Your task to perform on an android device: see sites visited before in the chrome app Image 0: 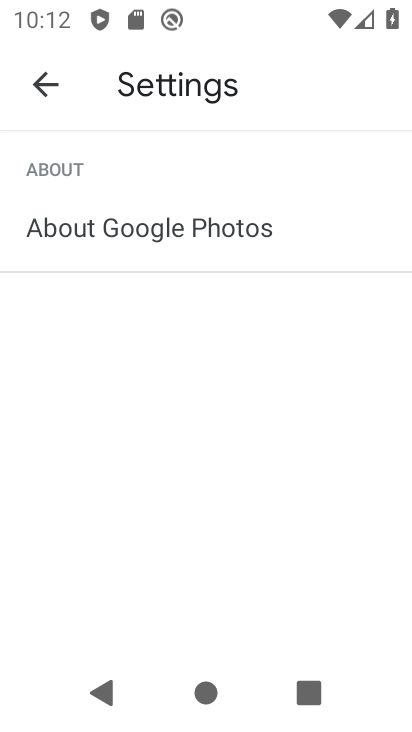
Step 0: click (254, 497)
Your task to perform on an android device: see sites visited before in the chrome app Image 1: 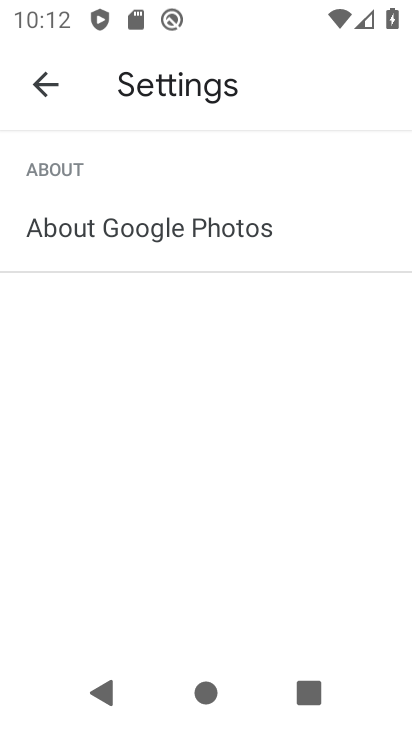
Step 1: press home button
Your task to perform on an android device: see sites visited before in the chrome app Image 2: 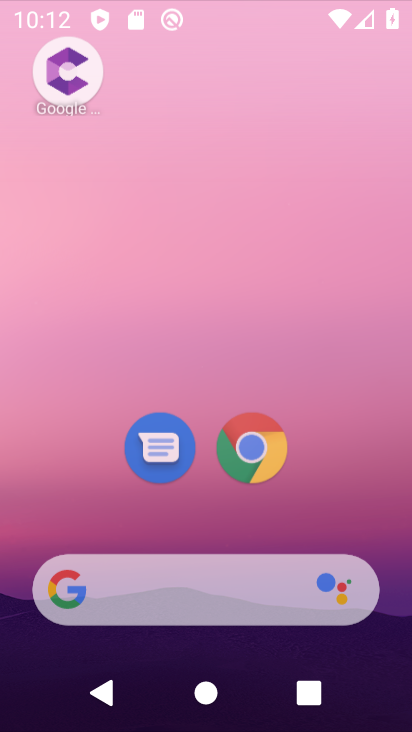
Step 2: click (193, 128)
Your task to perform on an android device: see sites visited before in the chrome app Image 3: 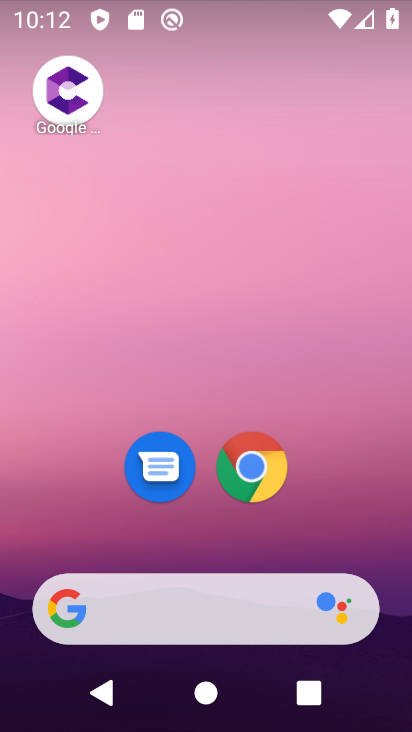
Step 3: drag from (208, 521) to (241, 95)
Your task to perform on an android device: see sites visited before in the chrome app Image 4: 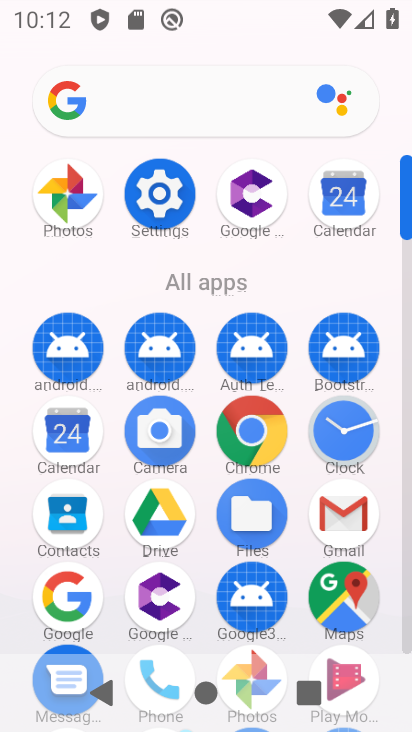
Step 4: click (250, 438)
Your task to perform on an android device: see sites visited before in the chrome app Image 5: 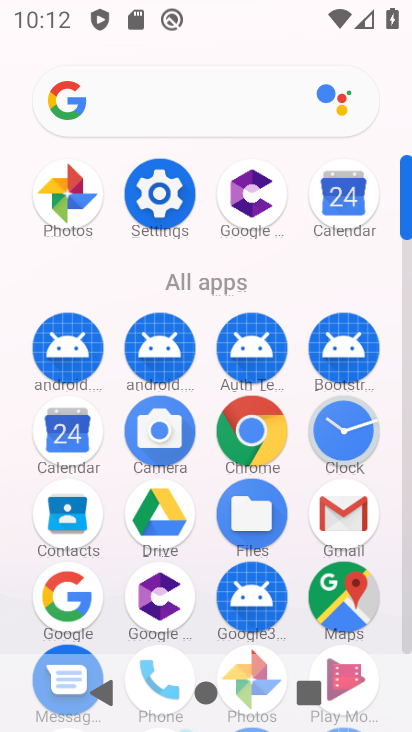
Step 5: click (250, 438)
Your task to perform on an android device: see sites visited before in the chrome app Image 6: 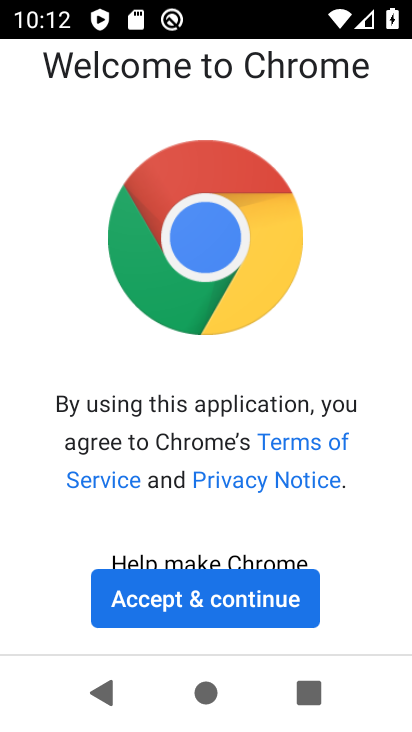
Step 6: click (224, 609)
Your task to perform on an android device: see sites visited before in the chrome app Image 7: 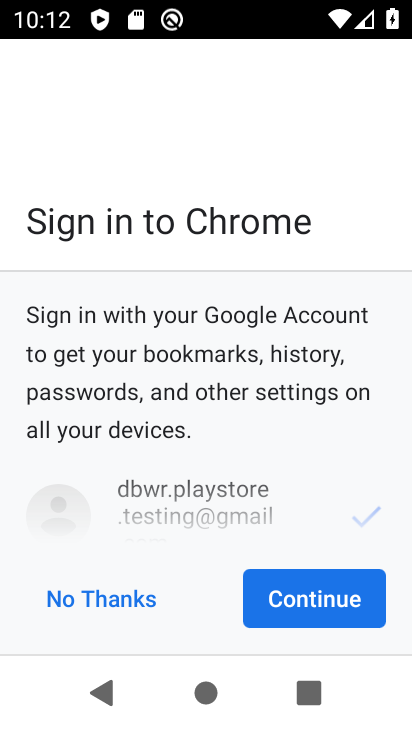
Step 7: click (264, 608)
Your task to perform on an android device: see sites visited before in the chrome app Image 8: 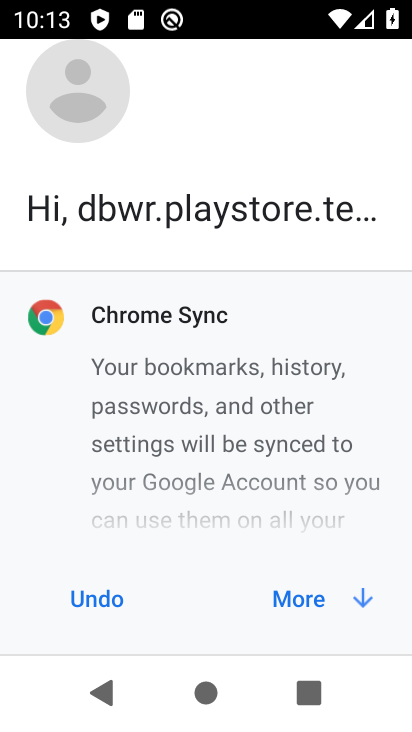
Step 8: click (301, 596)
Your task to perform on an android device: see sites visited before in the chrome app Image 9: 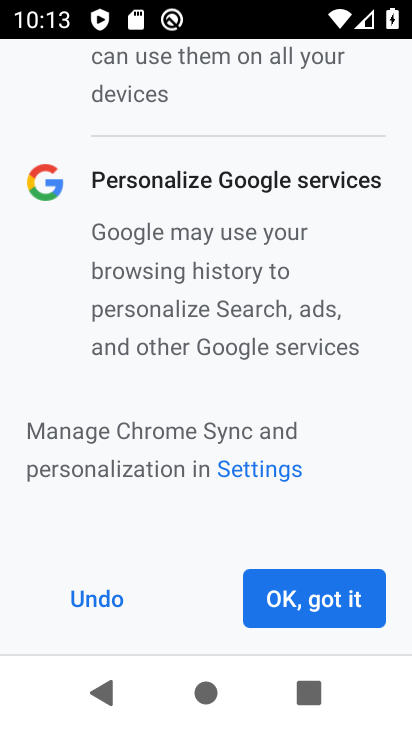
Step 9: click (293, 593)
Your task to perform on an android device: see sites visited before in the chrome app Image 10: 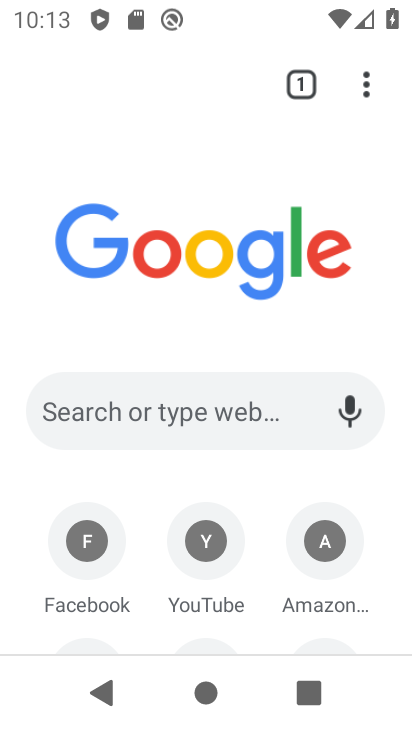
Step 10: click (356, 82)
Your task to perform on an android device: see sites visited before in the chrome app Image 11: 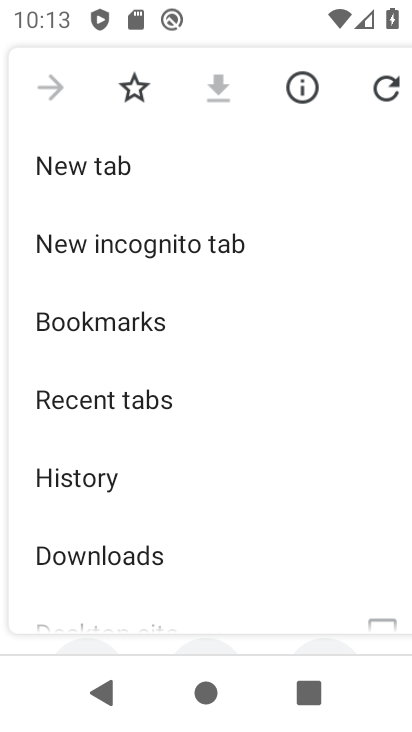
Step 11: drag from (145, 561) to (343, 45)
Your task to perform on an android device: see sites visited before in the chrome app Image 12: 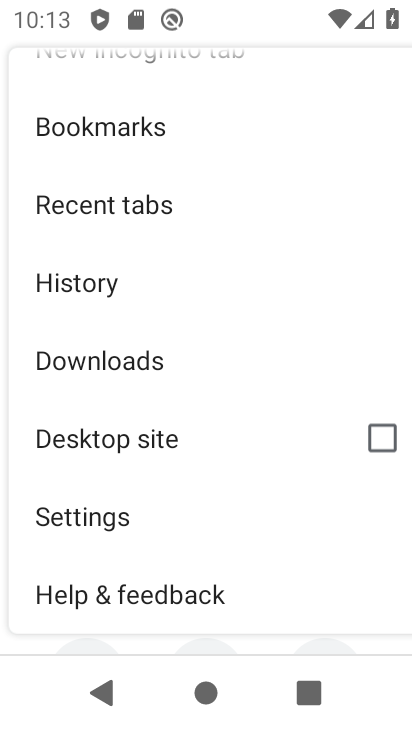
Step 12: click (128, 516)
Your task to perform on an android device: see sites visited before in the chrome app Image 13: 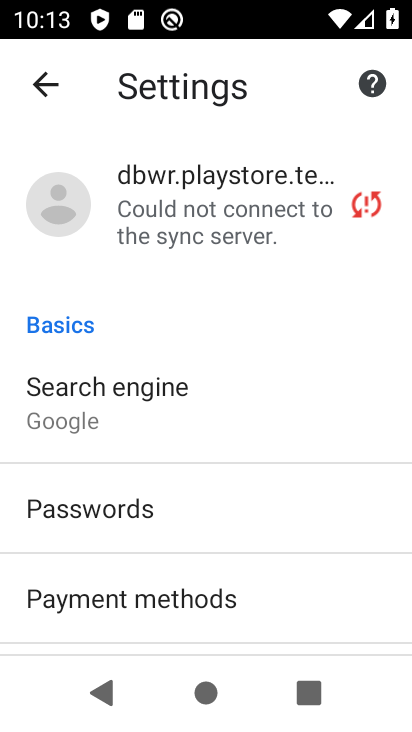
Step 13: drag from (210, 597) to (256, 212)
Your task to perform on an android device: see sites visited before in the chrome app Image 14: 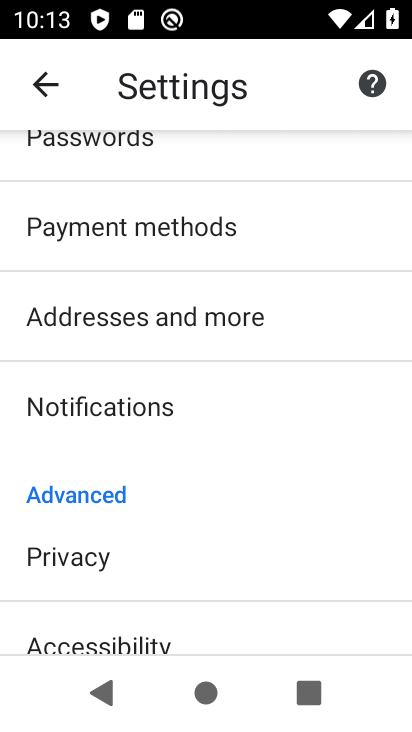
Step 14: drag from (157, 584) to (271, 146)
Your task to perform on an android device: see sites visited before in the chrome app Image 15: 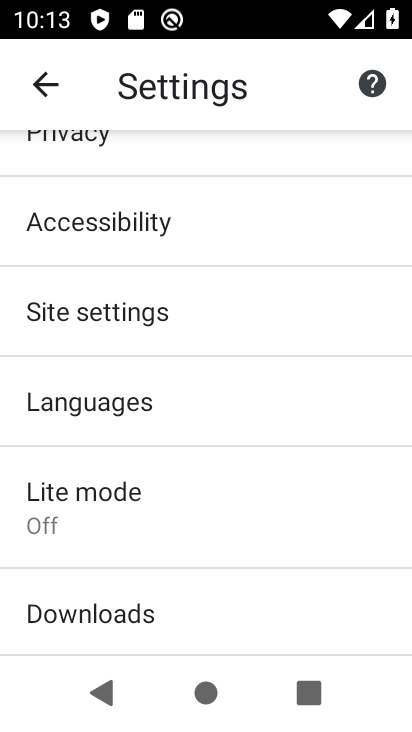
Step 15: drag from (119, 614) to (189, 267)
Your task to perform on an android device: see sites visited before in the chrome app Image 16: 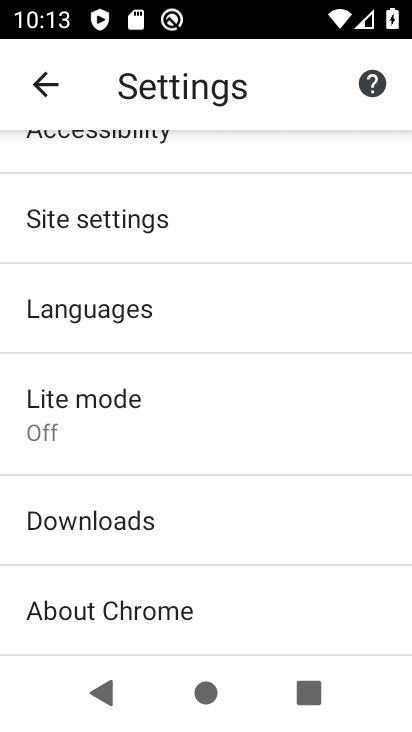
Step 16: drag from (168, 443) to (225, 726)
Your task to perform on an android device: see sites visited before in the chrome app Image 17: 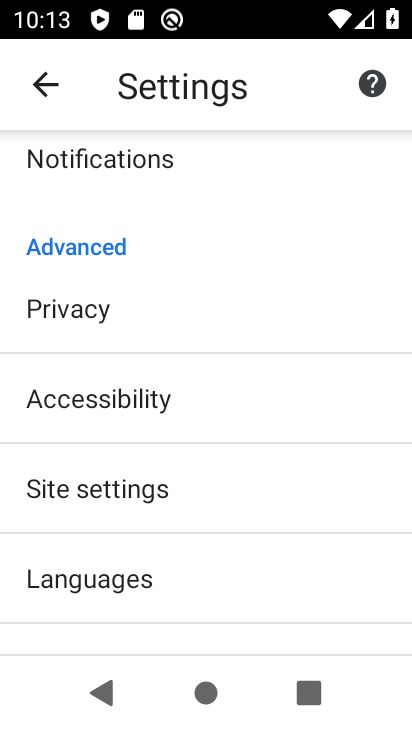
Step 17: drag from (137, 358) to (182, 597)
Your task to perform on an android device: see sites visited before in the chrome app Image 18: 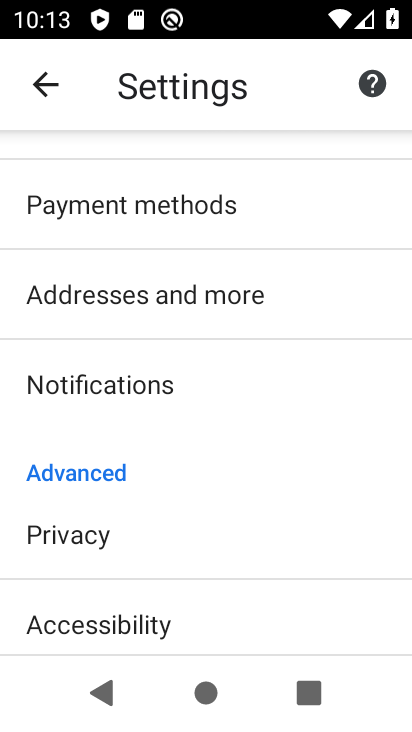
Step 18: click (49, 74)
Your task to perform on an android device: see sites visited before in the chrome app Image 19: 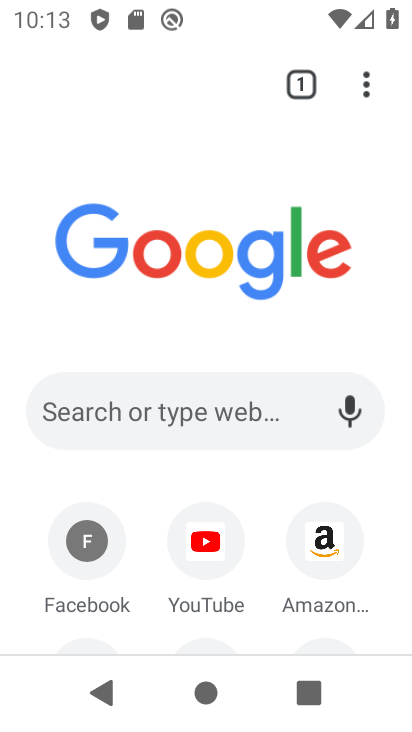
Step 19: click (350, 73)
Your task to perform on an android device: see sites visited before in the chrome app Image 20: 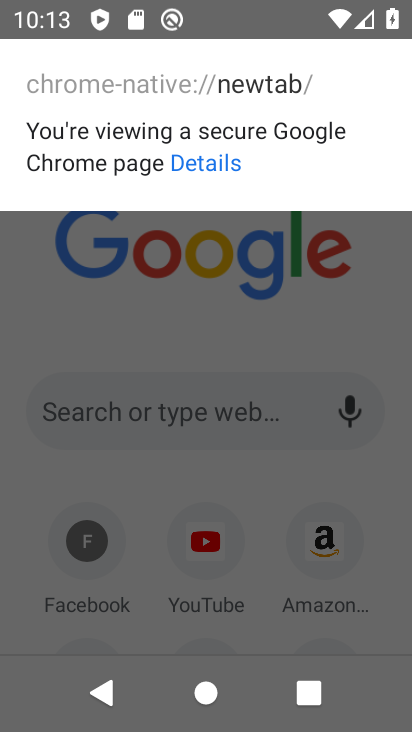
Step 20: click (348, 291)
Your task to perform on an android device: see sites visited before in the chrome app Image 21: 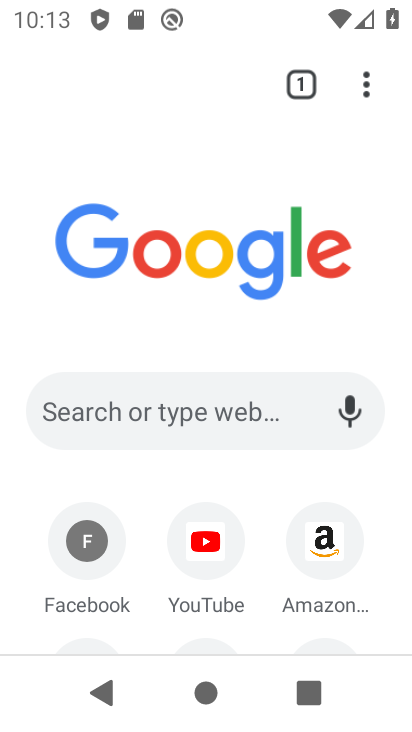
Step 21: click (372, 76)
Your task to perform on an android device: see sites visited before in the chrome app Image 22: 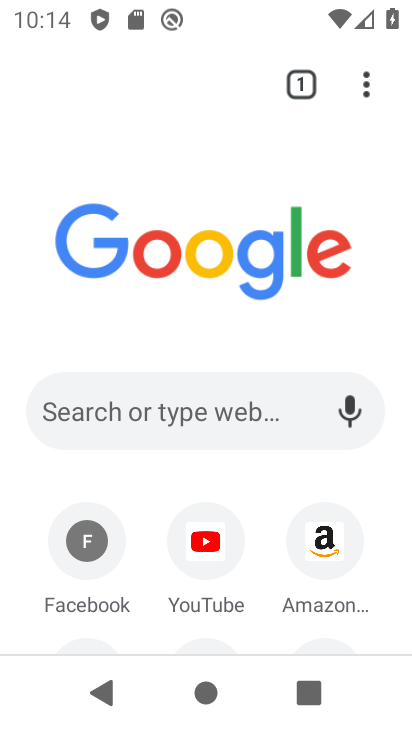
Step 22: click (365, 74)
Your task to perform on an android device: see sites visited before in the chrome app Image 23: 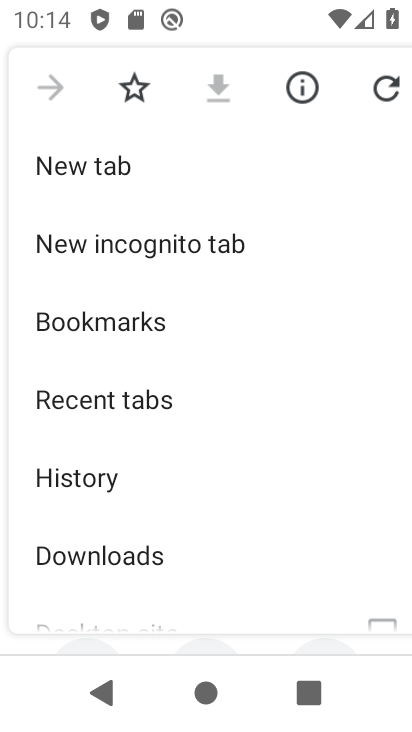
Step 23: click (145, 299)
Your task to perform on an android device: see sites visited before in the chrome app Image 24: 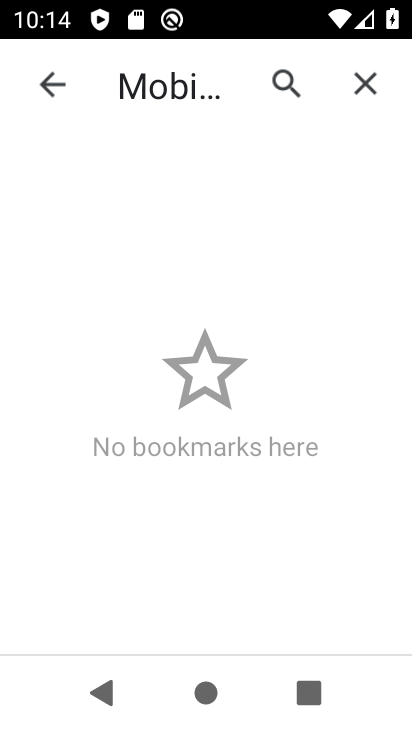
Step 24: task complete